Your task to perform on an android device: star an email in the gmail app Image 0: 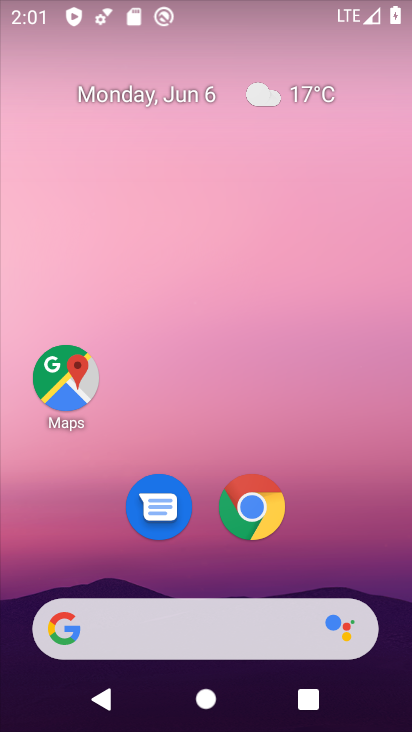
Step 0: drag from (385, 605) to (254, 279)
Your task to perform on an android device: star an email in the gmail app Image 1: 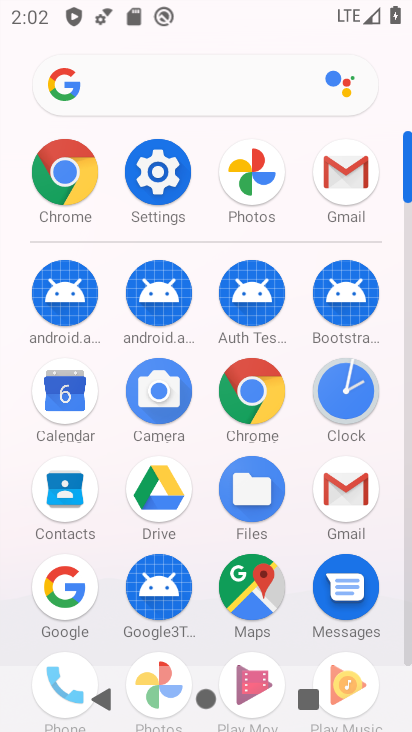
Step 1: click (364, 168)
Your task to perform on an android device: star an email in the gmail app Image 2: 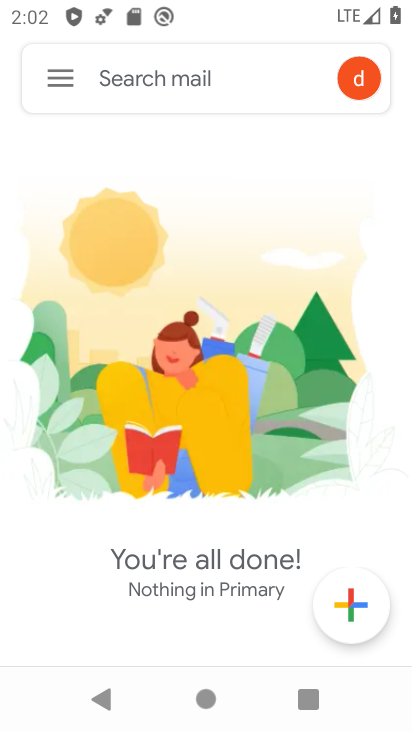
Step 2: task complete